Your task to perform on an android device: Show me popular games on the Play Store Image 0: 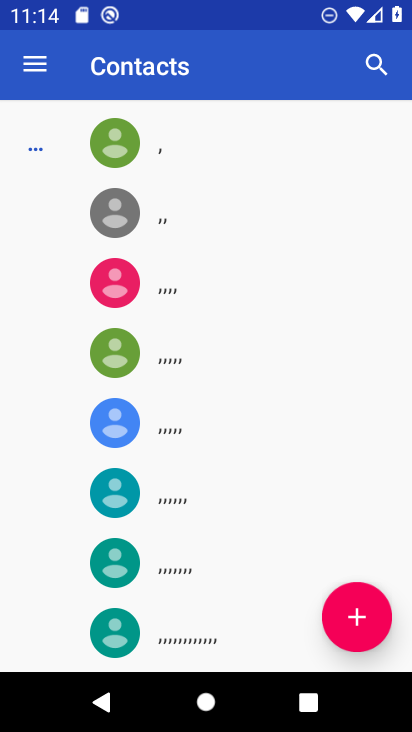
Step 0: press home button
Your task to perform on an android device: Show me popular games on the Play Store Image 1: 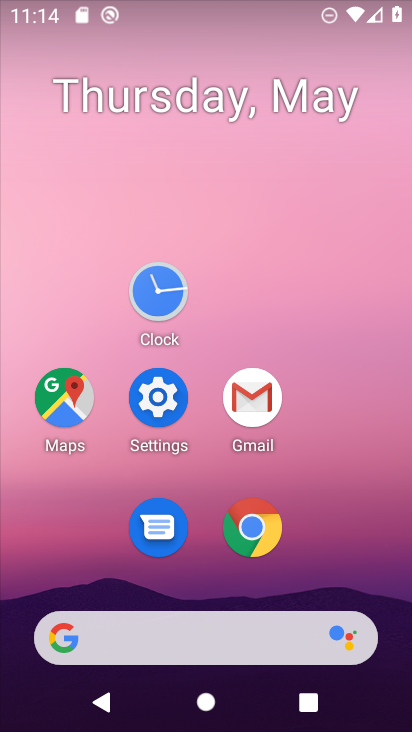
Step 1: drag from (351, 558) to (352, 139)
Your task to perform on an android device: Show me popular games on the Play Store Image 2: 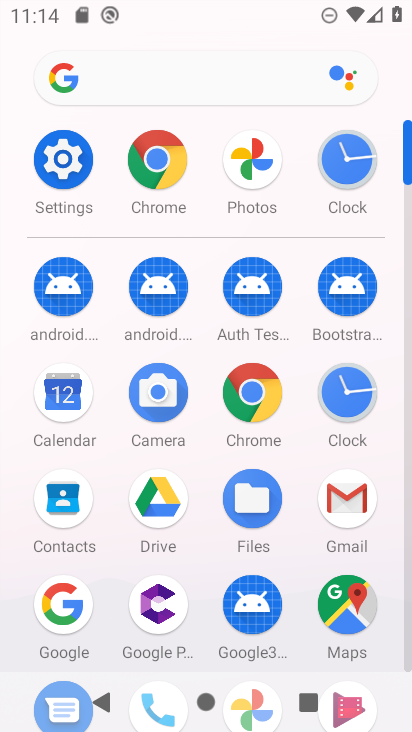
Step 2: click (407, 666)
Your task to perform on an android device: Show me popular games on the Play Store Image 3: 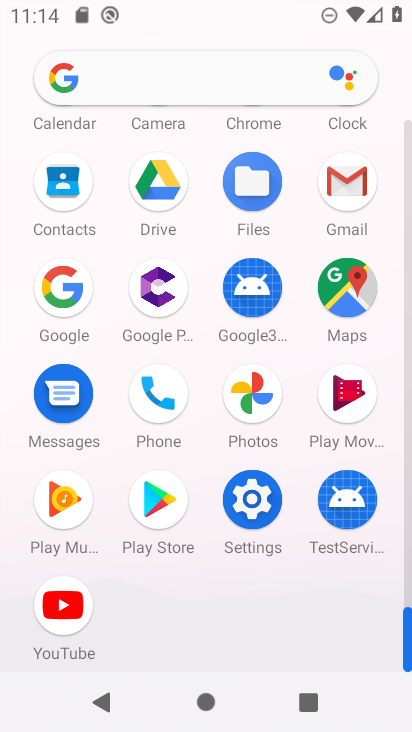
Step 3: click (86, 619)
Your task to perform on an android device: Show me popular games on the Play Store Image 4: 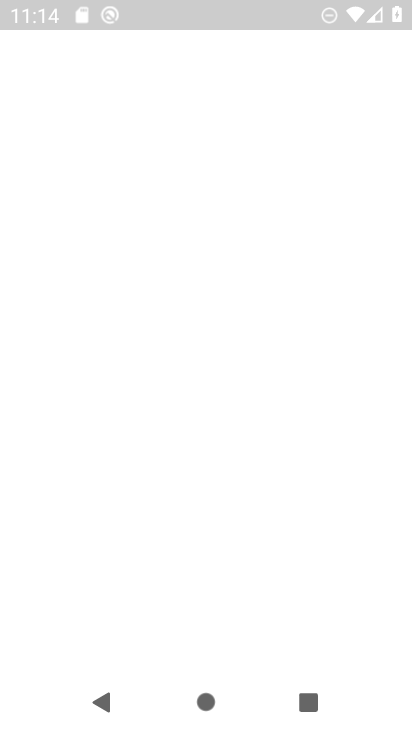
Step 4: press back button
Your task to perform on an android device: Show me popular games on the Play Store Image 5: 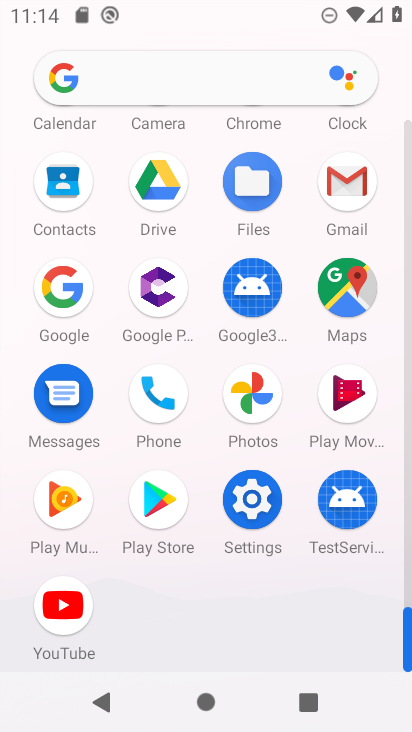
Step 5: click (136, 534)
Your task to perform on an android device: Show me popular games on the Play Store Image 6: 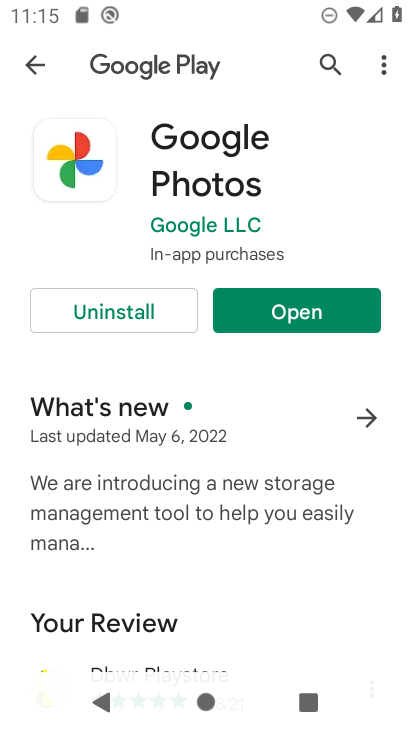
Step 6: click (35, 53)
Your task to perform on an android device: Show me popular games on the Play Store Image 7: 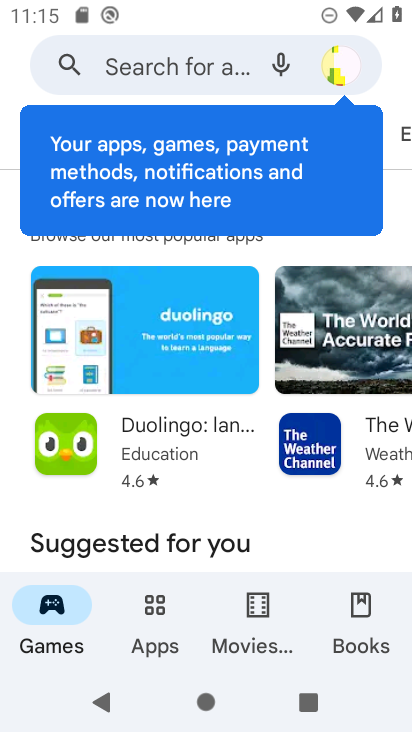
Step 7: task complete